Your task to perform on an android device: uninstall "File Manager" Image 0: 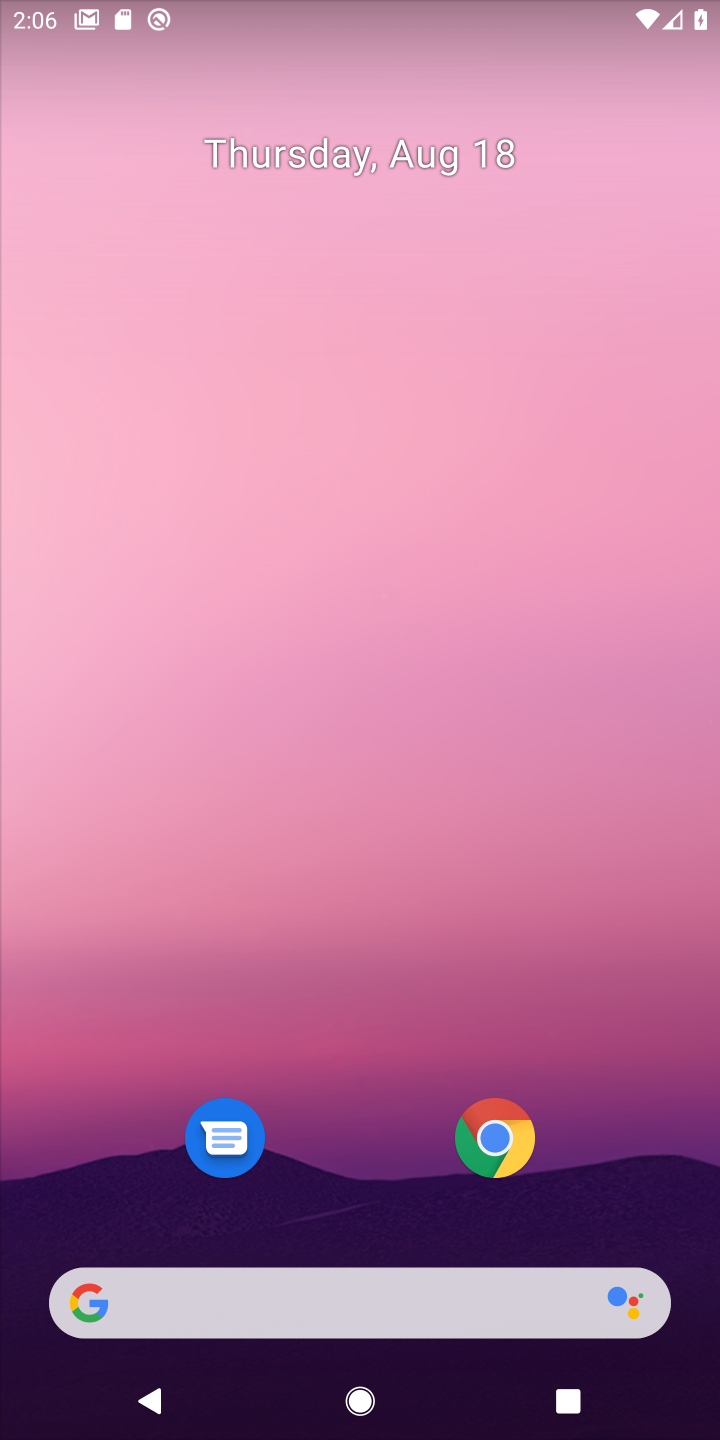
Step 0: drag from (418, 1098) to (465, 5)
Your task to perform on an android device: uninstall "File Manager" Image 1: 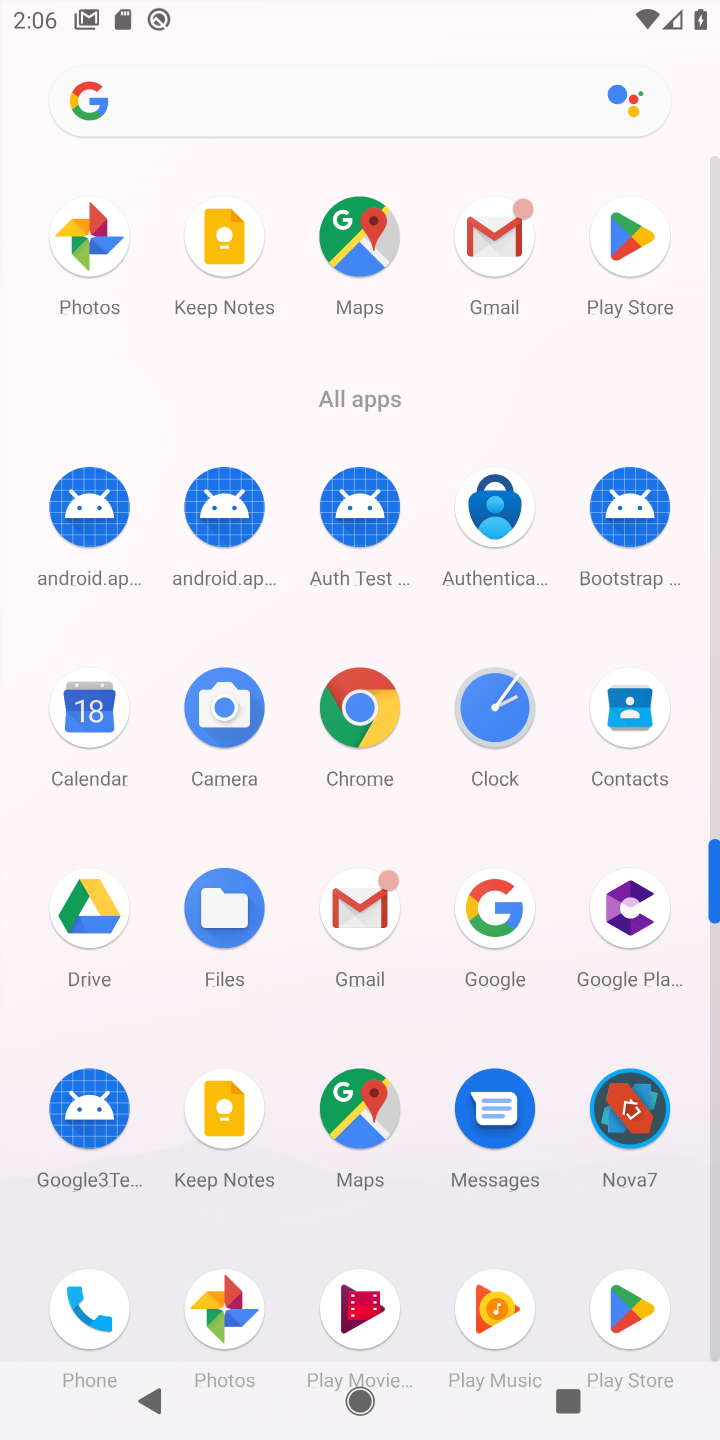
Step 1: drag from (467, 1000) to (480, 707)
Your task to perform on an android device: uninstall "File Manager" Image 2: 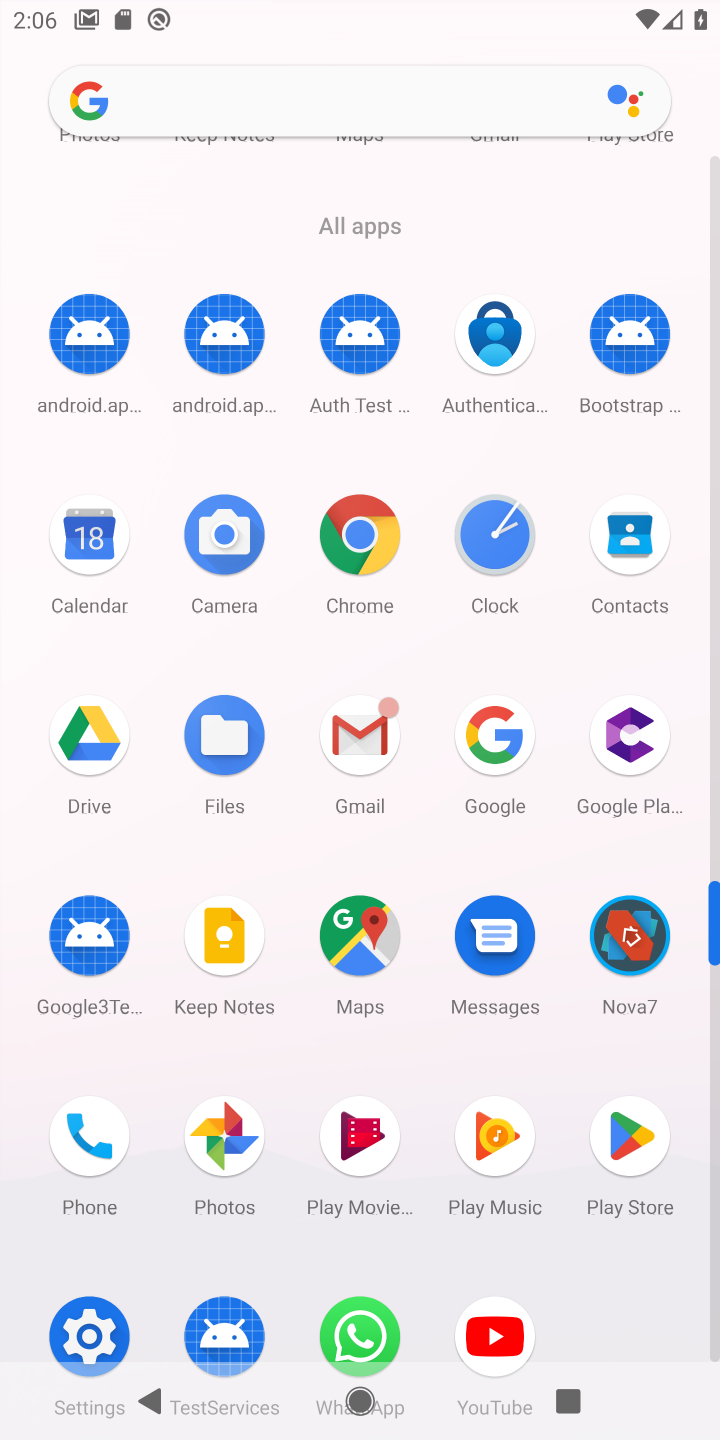
Step 2: click (245, 770)
Your task to perform on an android device: uninstall "File Manager" Image 3: 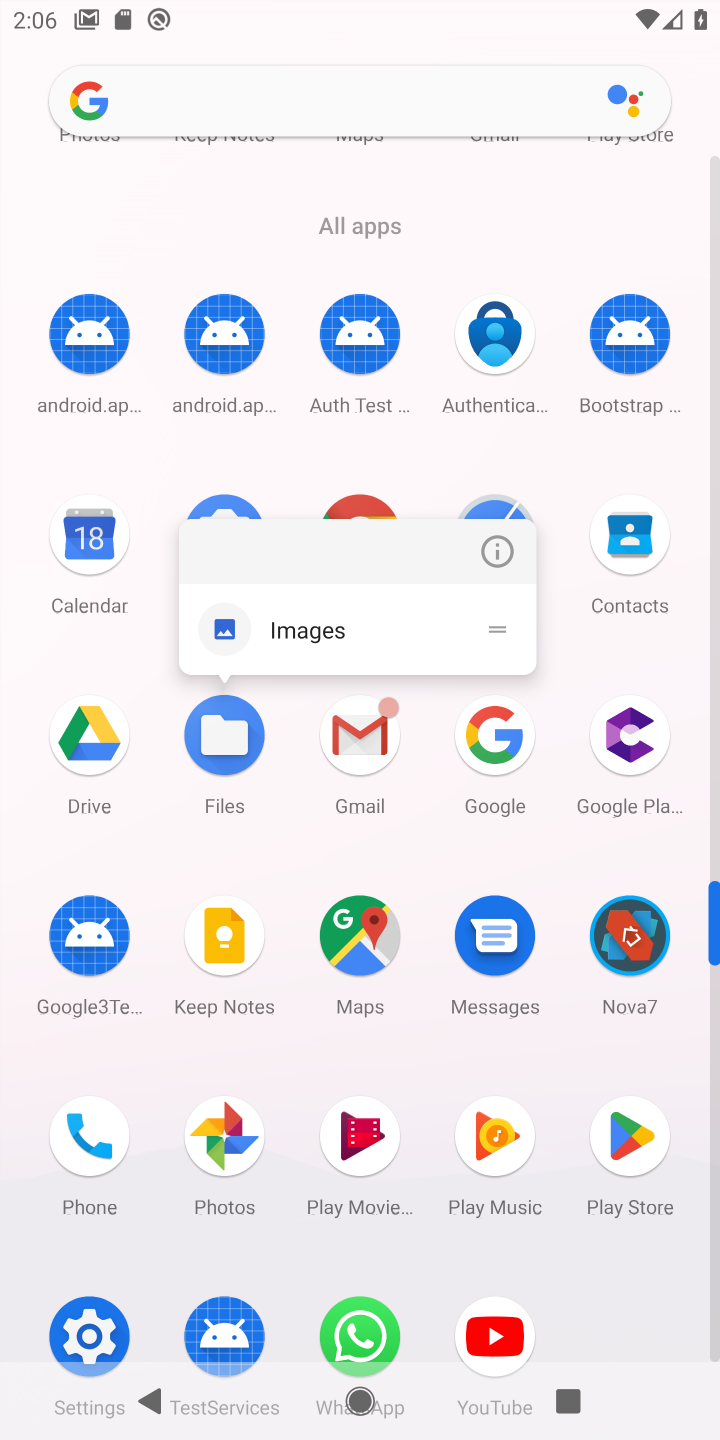
Step 3: click (508, 555)
Your task to perform on an android device: uninstall "File Manager" Image 4: 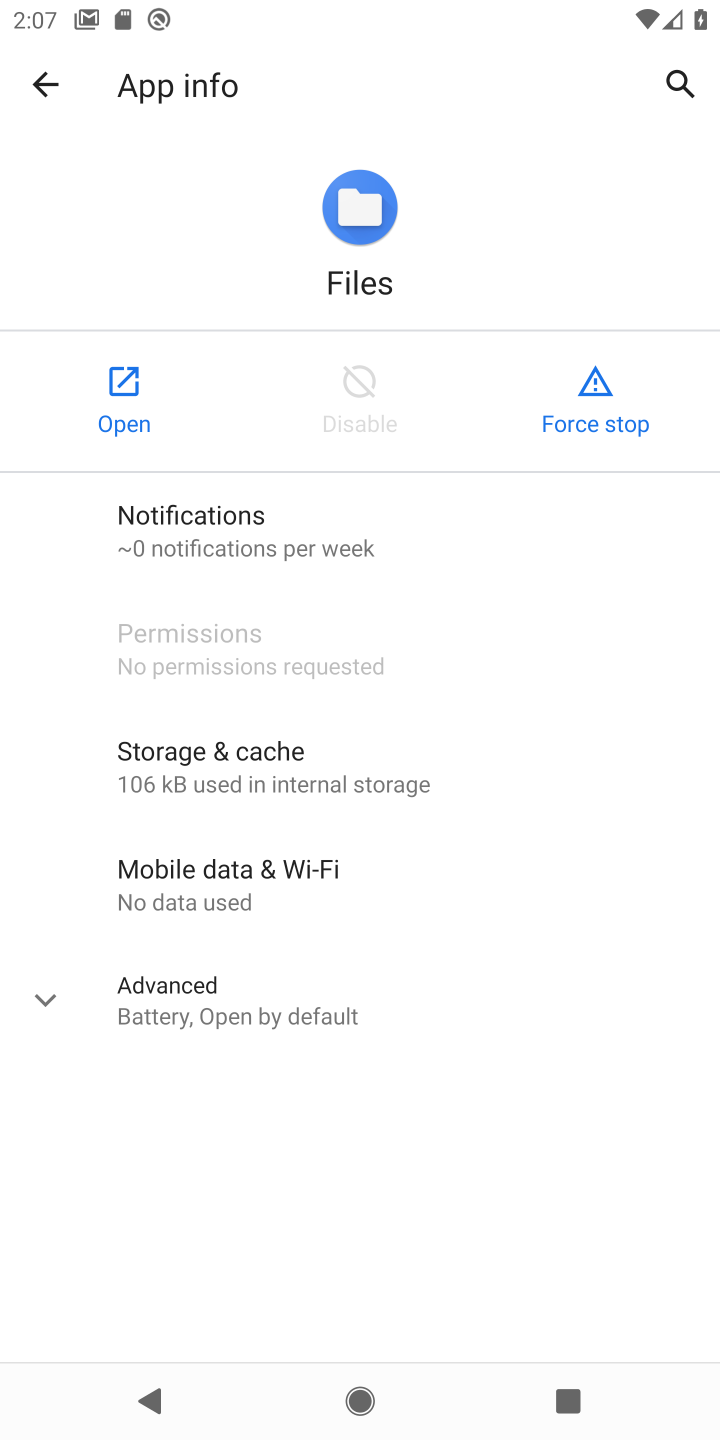
Step 4: task complete